Your task to perform on an android device: turn off location Image 0: 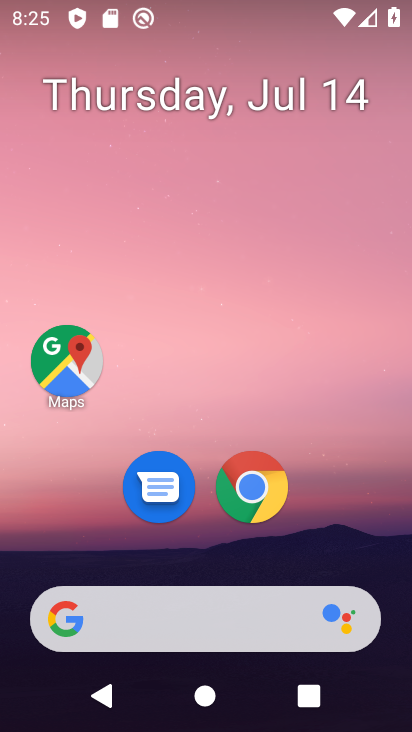
Step 0: drag from (212, 539) to (275, 30)
Your task to perform on an android device: turn off location Image 1: 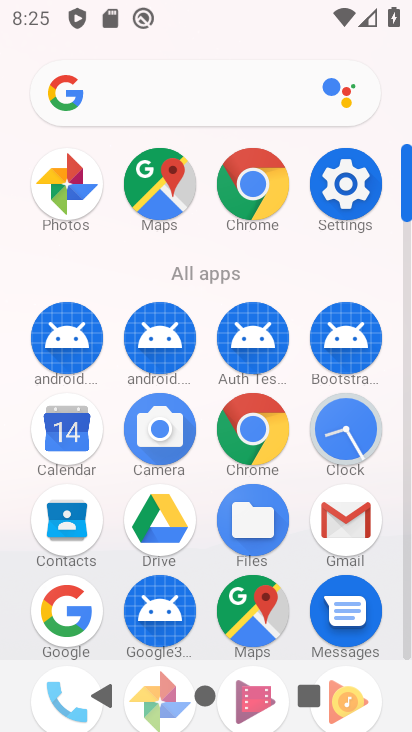
Step 1: click (356, 178)
Your task to perform on an android device: turn off location Image 2: 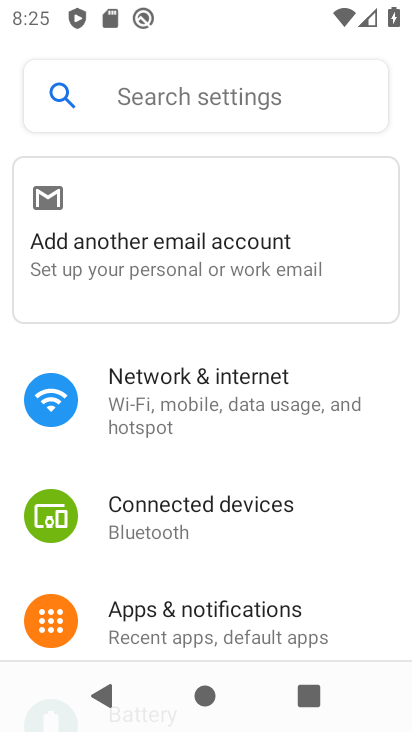
Step 2: drag from (189, 562) to (270, 154)
Your task to perform on an android device: turn off location Image 3: 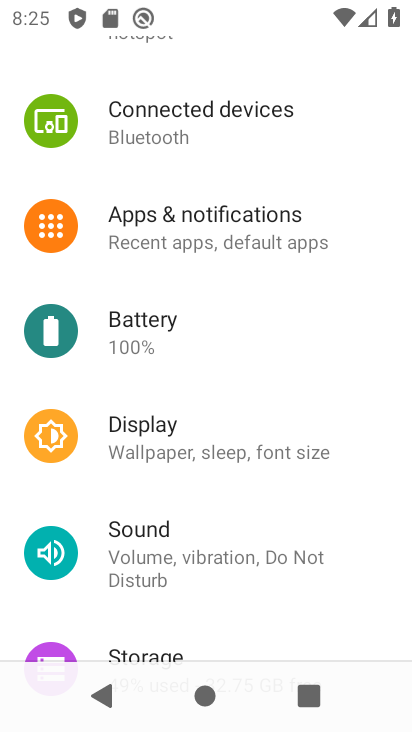
Step 3: drag from (215, 575) to (299, 151)
Your task to perform on an android device: turn off location Image 4: 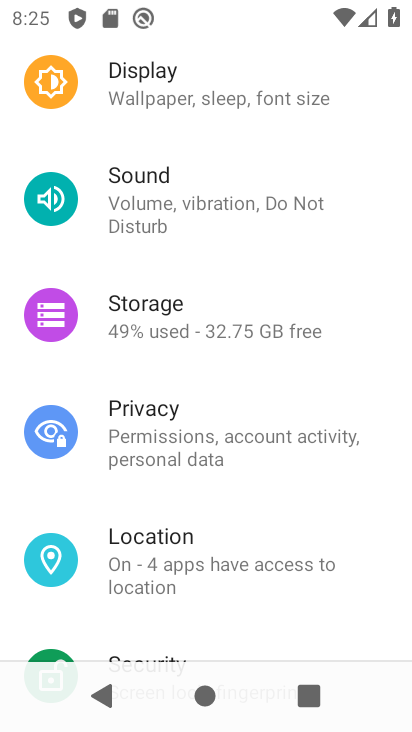
Step 4: click (213, 556)
Your task to perform on an android device: turn off location Image 5: 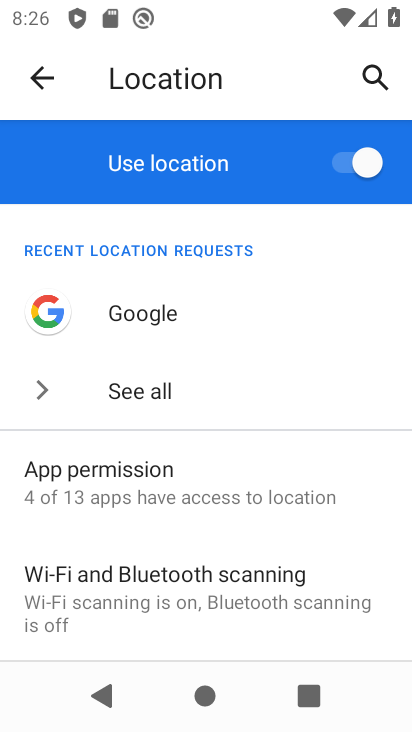
Step 5: click (363, 154)
Your task to perform on an android device: turn off location Image 6: 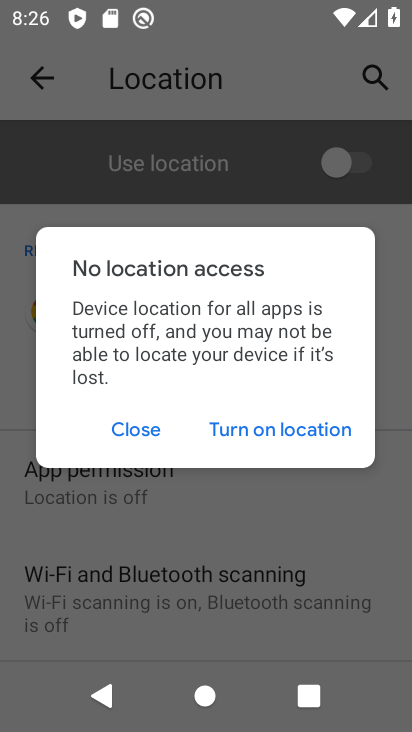
Step 6: click (138, 423)
Your task to perform on an android device: turn off location Image 7: 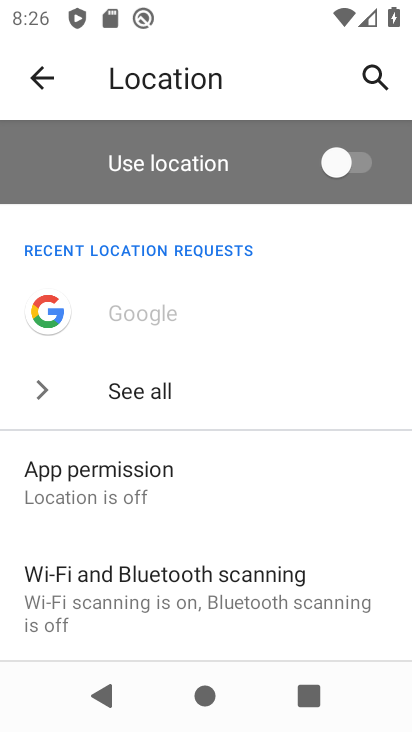
Step 7: task complete